Your task to perform on an android device: delete the emails in spam in the gmail app Image 0: 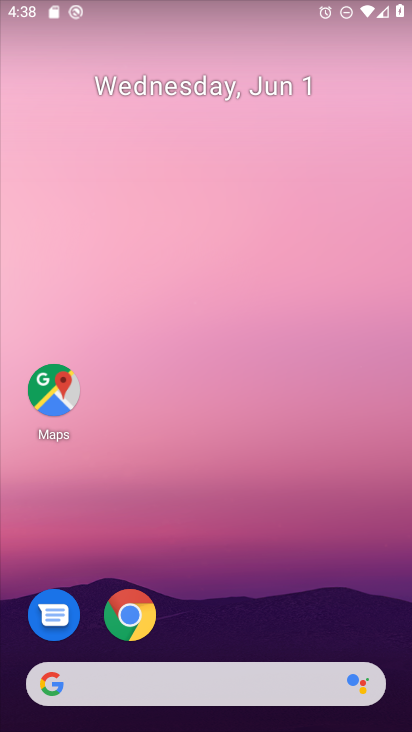
Step 0: drag from (26, 254) to (372, 262)
Your task to perform on an android device: delete the emails in spam in the gmail app Image 1: 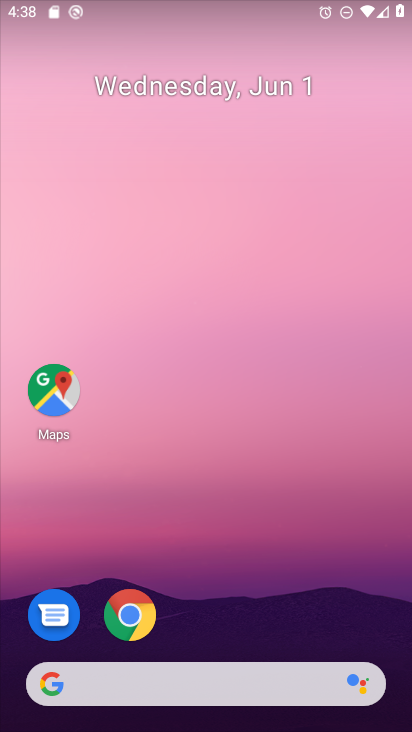
Step 1: drag from (13, 251) to (365, 269)
Your task to perform on an android device: delete the emails in spam in the gmail app Image 2: 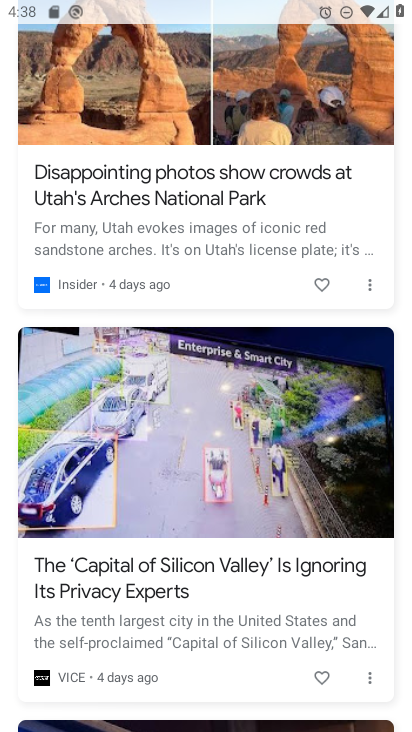
Step 2: drag from (231, 108) to (231, 580)
Your task to perform on an android device: delete the emails in spam in the gmail app Image 3: 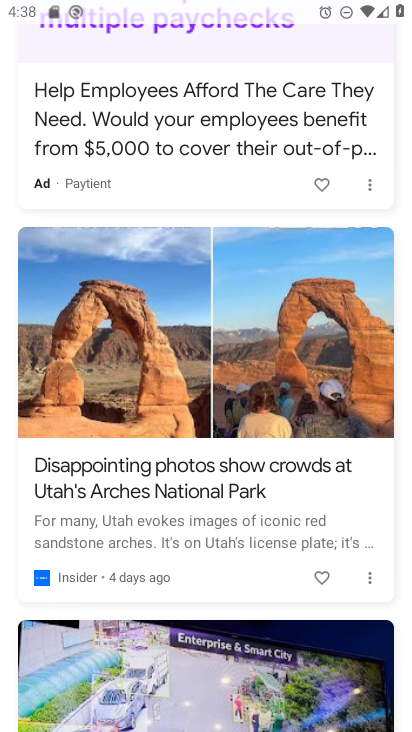
Step 3: click (235, 645)
Your task to perform on an android device: delete the emails in spam in the gmail app Image 4: 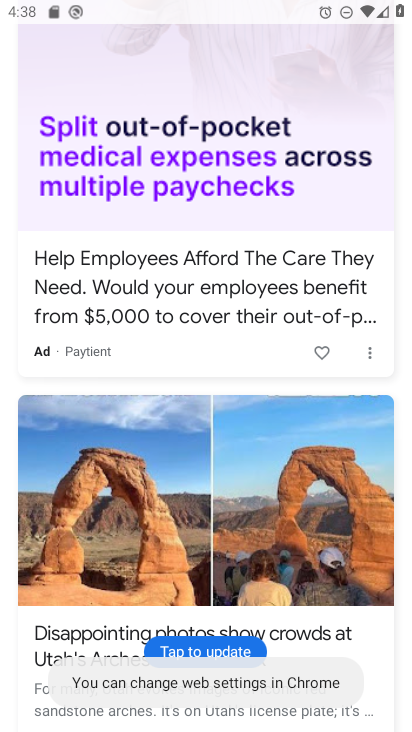
Step 4: drag from (218, 193) to (168, 711)
Your task to perform on an android device: delete the emails in spam in the gmail app Image 5: 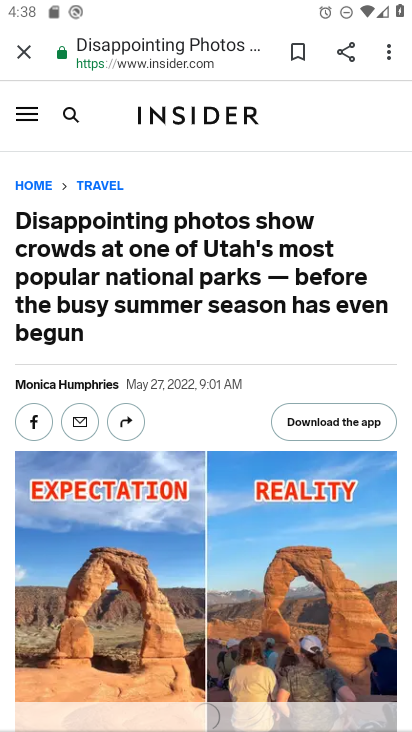
Step 5: press back button
Your task to perform on an android device: delete the emails in spam in the gmail app Image 6: 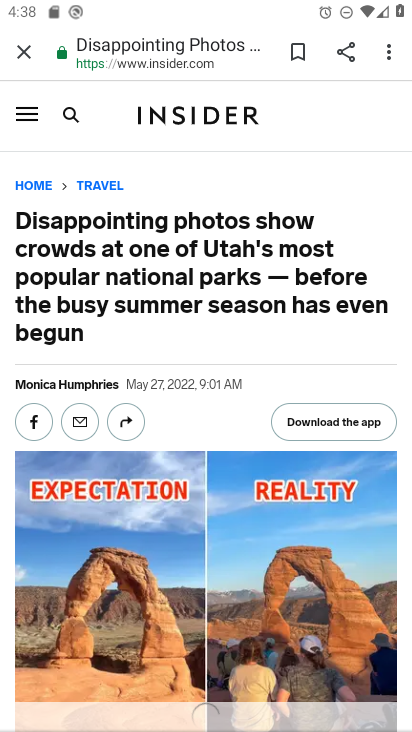
Step 6: press home button
Your task to perform on an android device: delete the emails in spam in the gmail app Image 7: 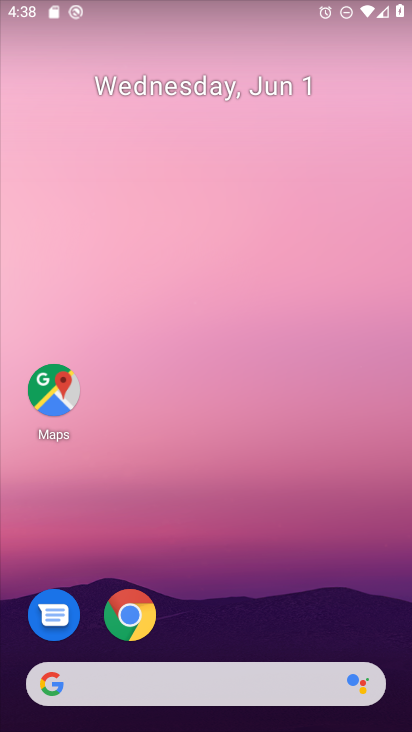
Step 7: drag from (229, 639) to (228, 161)
Your task to perform on an android device: delete the emails in spam in the gmail app Image 8: 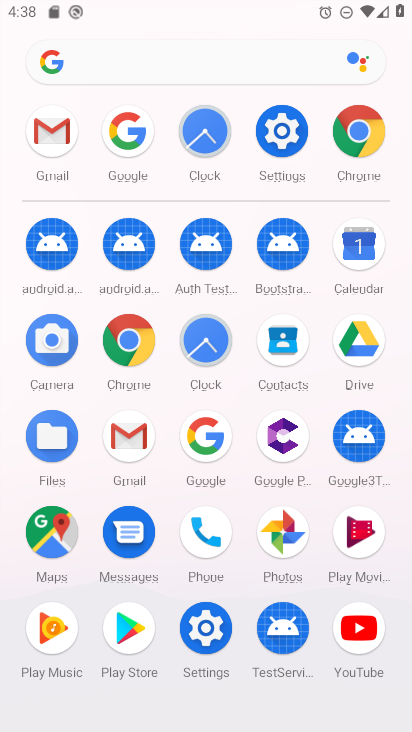
Step 8: click (52, 121)
Your task to perform on an android device: delete the emails in spam in the gmail app Image 9: 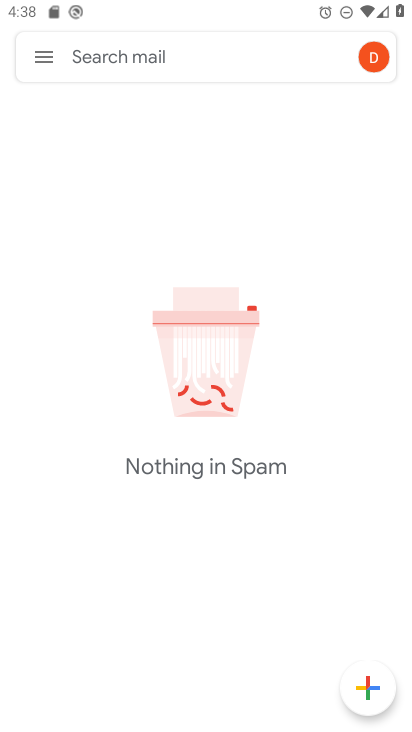
Step 9: task complete